Your task to perform on an android device: Go to network settings Image 0: 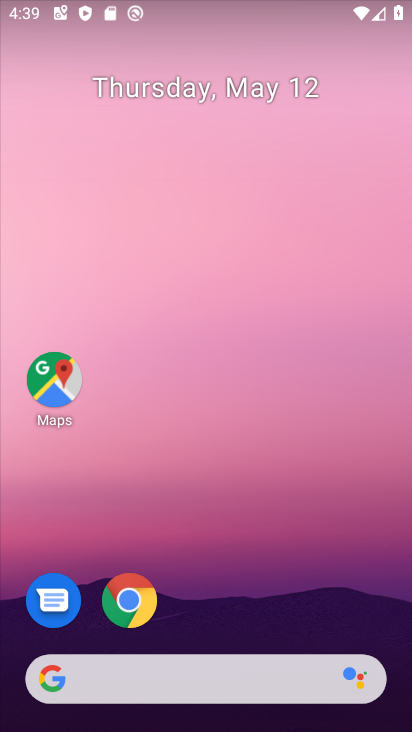
Step 0: drag from (179, 614) to (258, 38)
Your task to perform on an android device: Go to network settings Image 1: 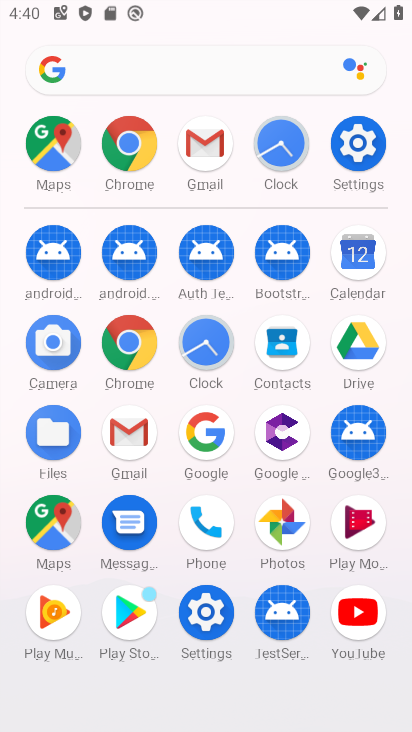
Step 1: click (336, 148)
Your task to perform on an android device: Go to network settings Image 2: 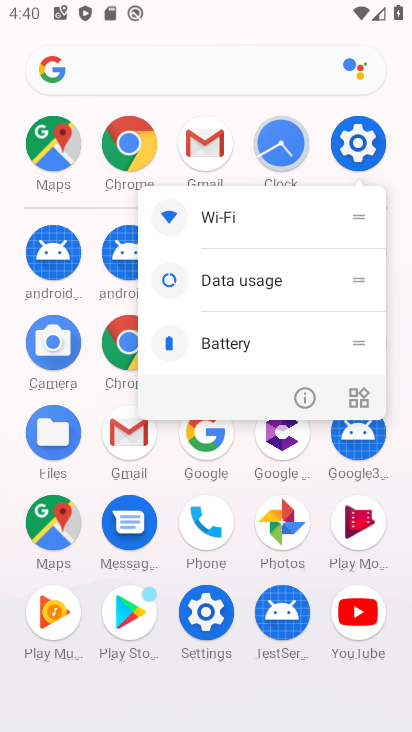
Step 2: click (299, 405)
Your task to perform on an android device: Go to network settings Image 3: 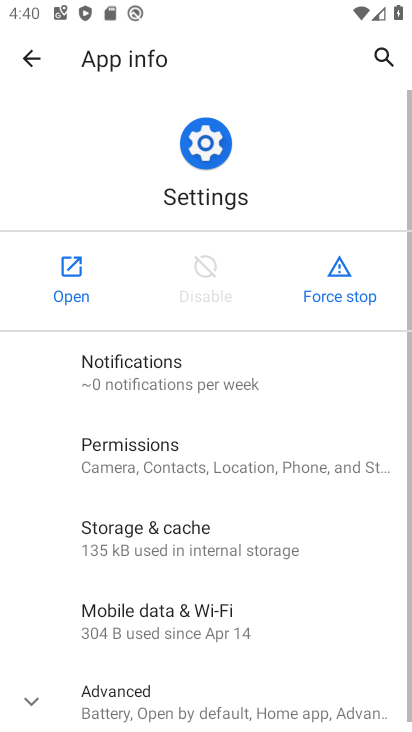
Step 3: click (83, 263)
Your task to perform on an android device: Go to network settings Image 4: 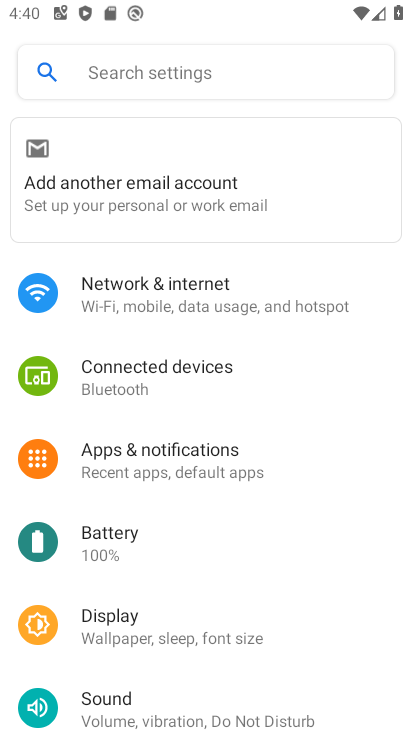
Step 4: click (152, 289)
Your task to perform on an android device: Go to network settings Image 5: 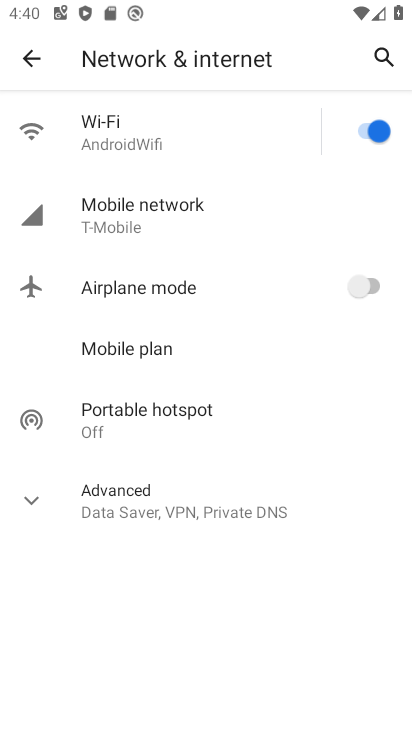
Step 5: task complete